Your task to perform on an android device: Open battery settings Image 0: 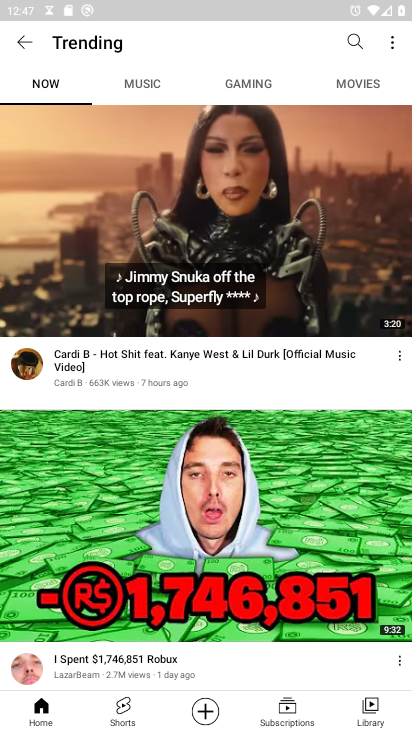
Step 0: press back button
Your task to perform on an android device: Open battery settings Image 1: 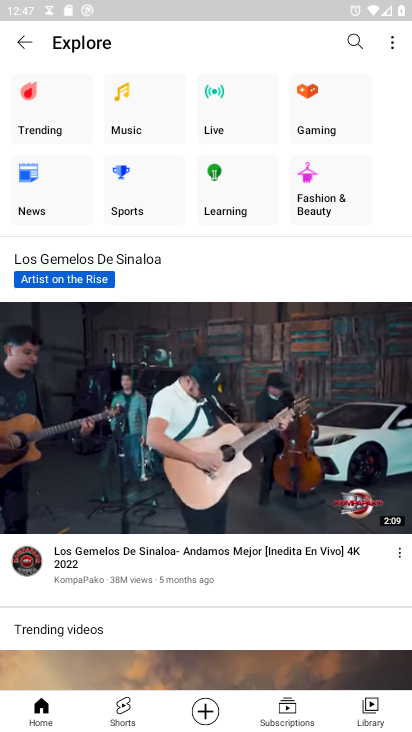
Step 1: press back button
Your task to perform on an android device: Open battery settings Image 2: 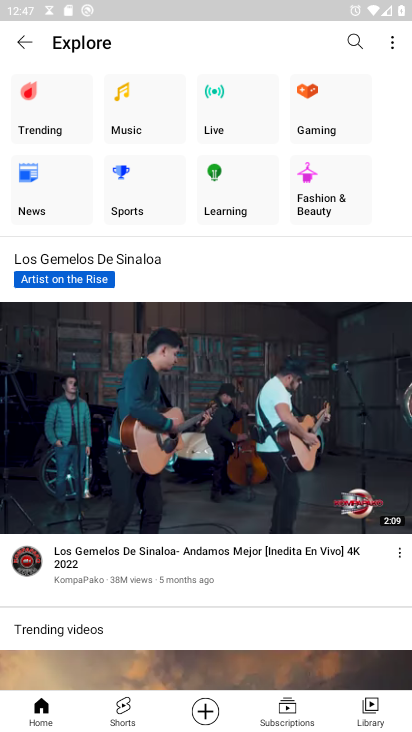
Step 2: press back button
Your task to perform on an android device: Open battery settings Image 3: 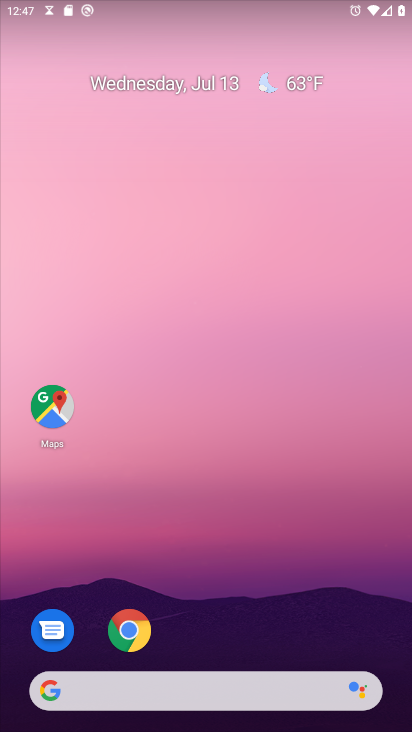
Step 3: drag from (167, 684) to (179, 70)
Your task to perform on an android device: Open battery settings Image 4: 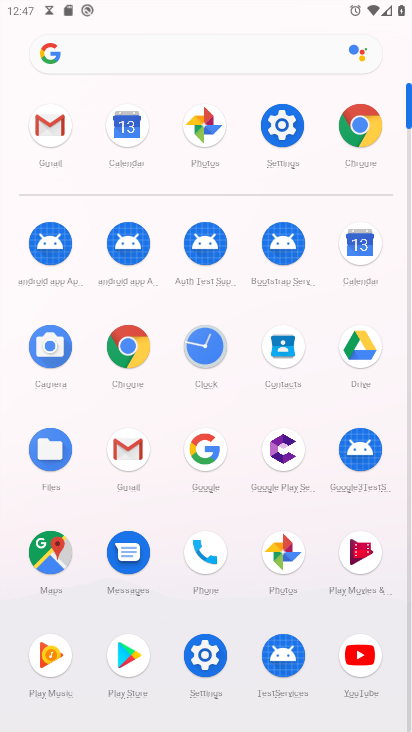
Step 4: click (286, 137)
Your task to perform on an android device: Open battery settings Image 5: 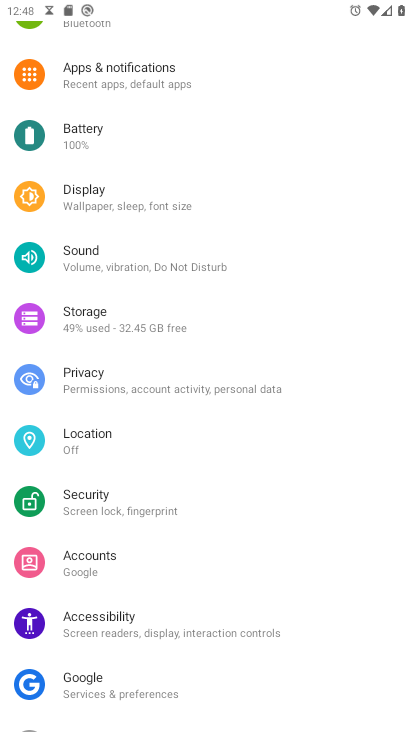
Step 5: click (101, 140)
Your task to perform on an android device: Open battery settings Image 6: 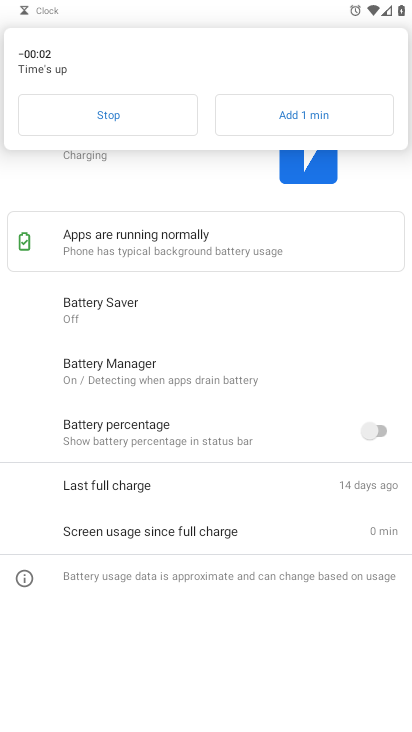
Step 6: task complete